Your task to perform on an android device: Check the weather Image 0: 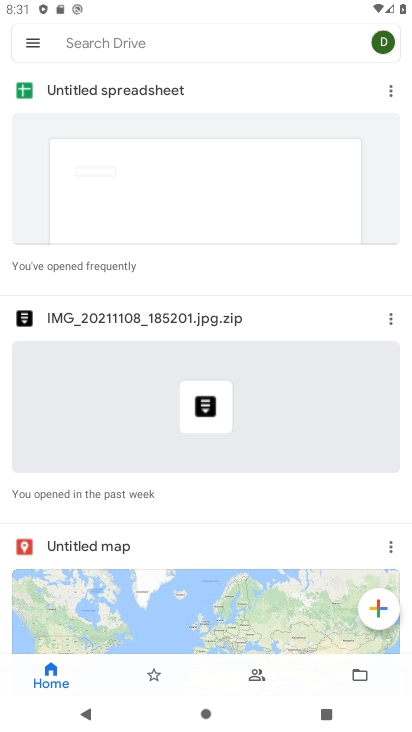
Step 0: press home button
Your task to perform on an android device: Check the weather Image 1: 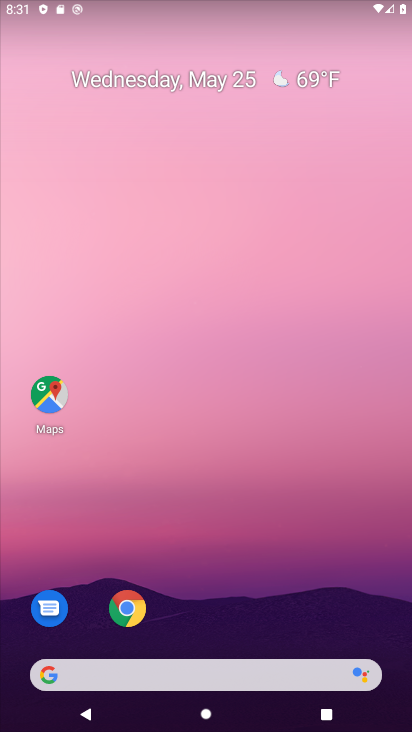
Step 1: click (313, 74)
Your task to perform on an android device: Check the weather Image 2: 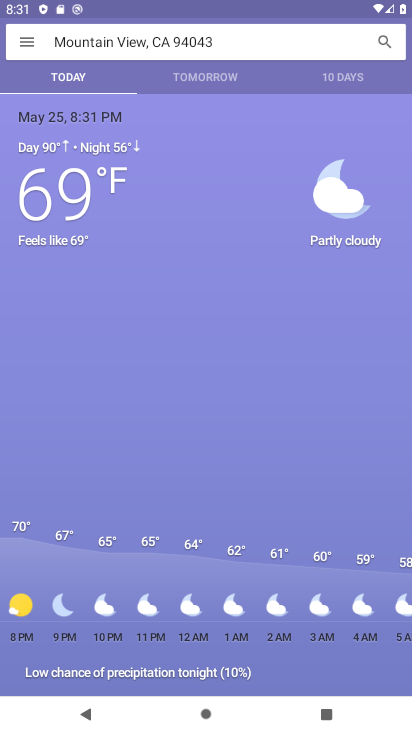
Step 2: task complete